Your task to perform on an android device: Go to Reddit.com Image 0: 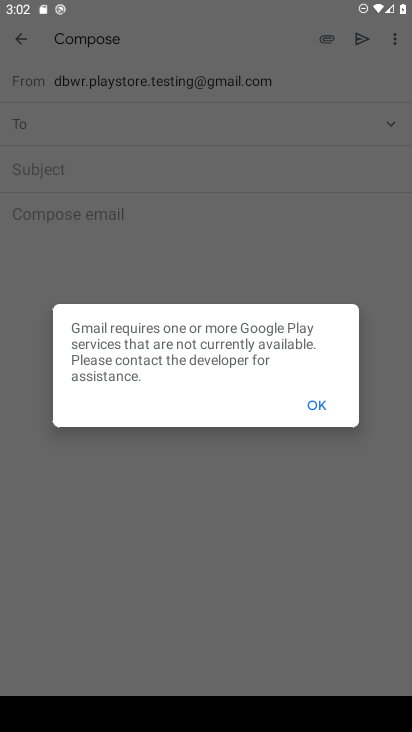
Step 0: press home button
Your task to perform on an android device: Go to Reddit.com Image 1: 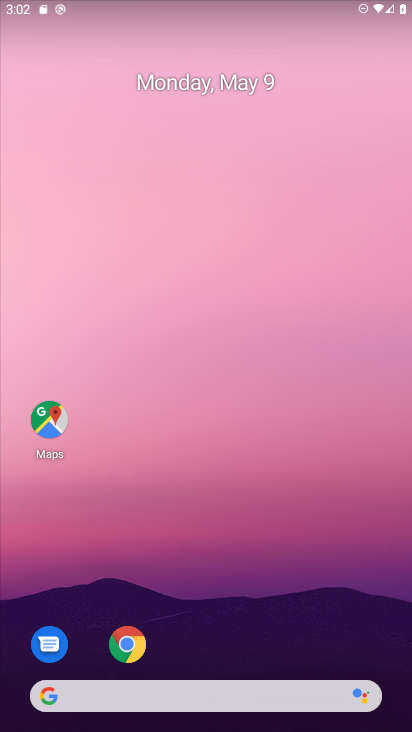
Step 1: click (140, 650)
Your task to perform on an android device: Go to Reddit.com Image 2: 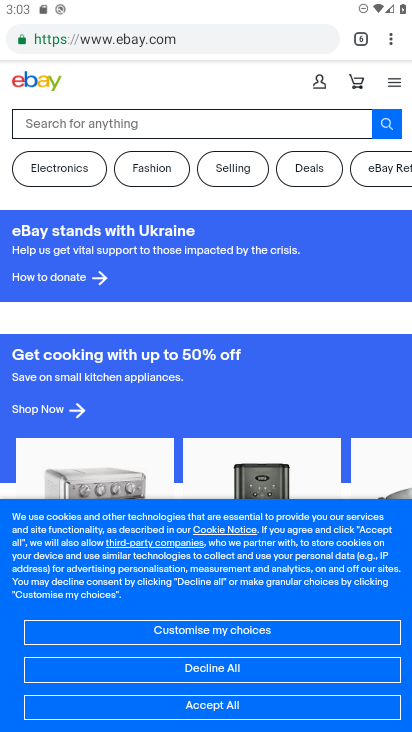
Step 2: click (185, 30)
Your task to perform on an android device: Go to Reddit.com Image 3: 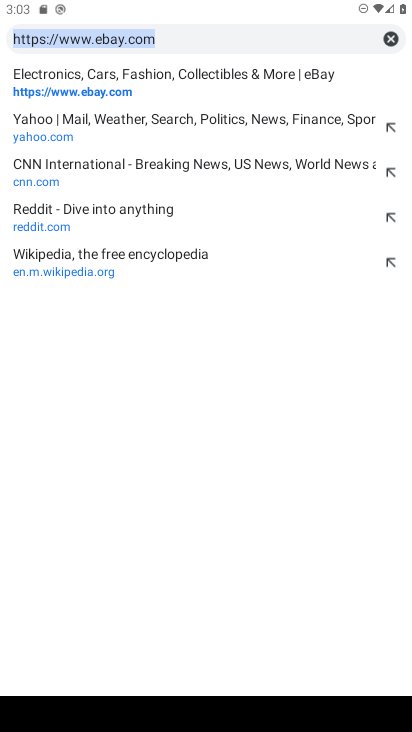
Step 3: click (103, 227)
Your task to perform on an android device: Go to Reddit.com Image 4: 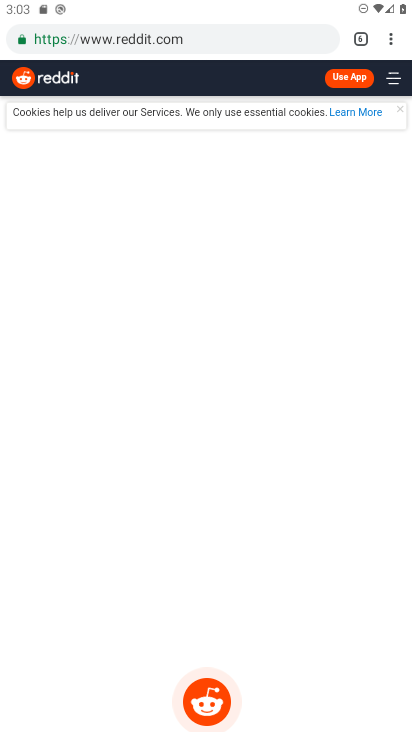
Step 4: task complete